Your task to perform on an android device: create a new album in the google photos Image 0: 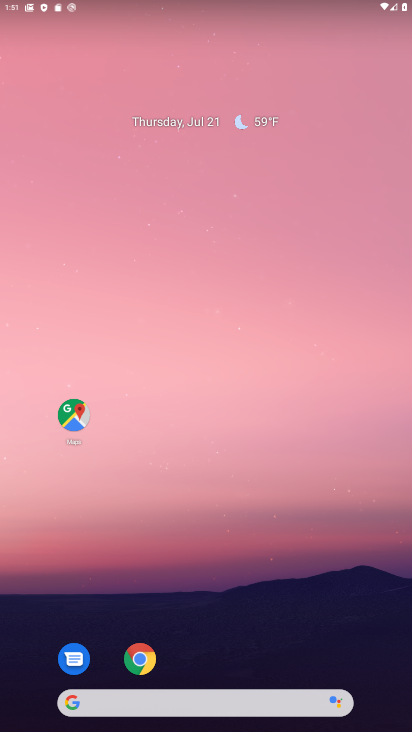
Step 0: drag from (283, 275) to (303, 43)
Your task to perform on an android device: create a new album in the google photos Image 1: 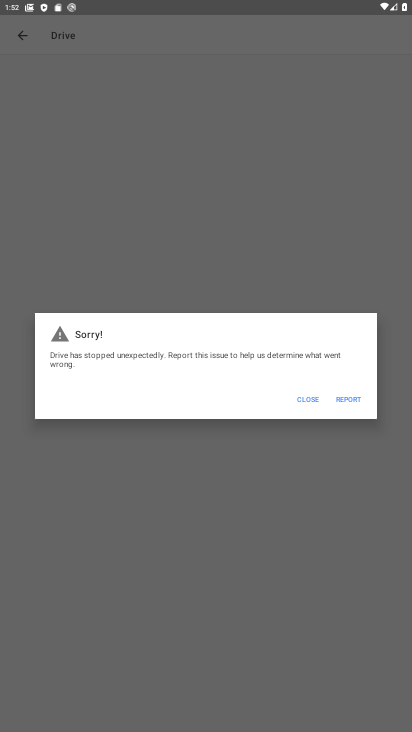
Step 1: press home button
Your task to perform on an android device: create a new album in the google photos Image 2: 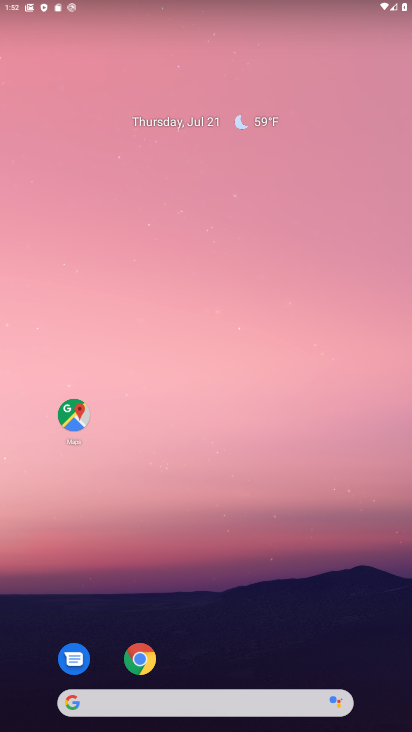
Step 2: drag from (293, 577) to (272, 4)
Your task to perform on an android device: create a new album in the google photos Image 3: 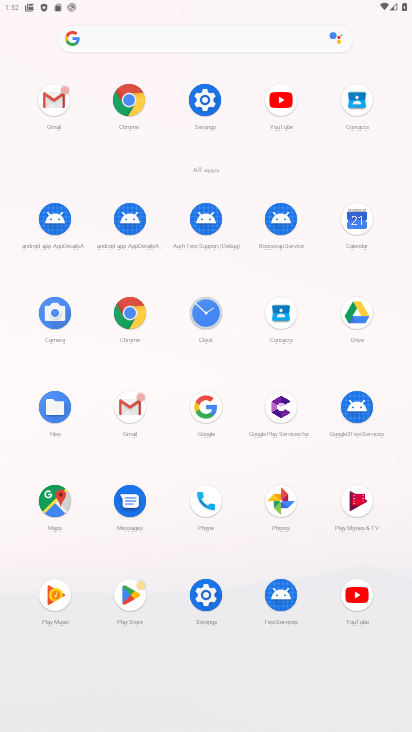
Step 3: click (281, 497)
Your task to perform on an android device: create a new album in the google photos Image 4: 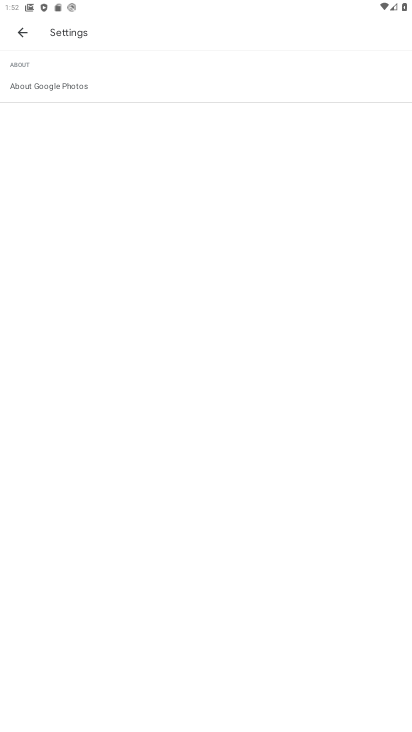
Step 4: click (30, 26)
Your task to perform on an android device: create a new album in the google photos Image 5: 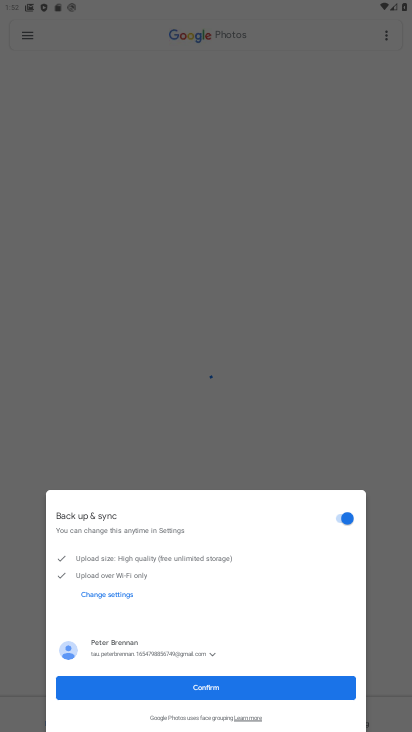
Step 5: click (245, 680)
Your task to perform on an android device: create a new album in the google photos Image 6: 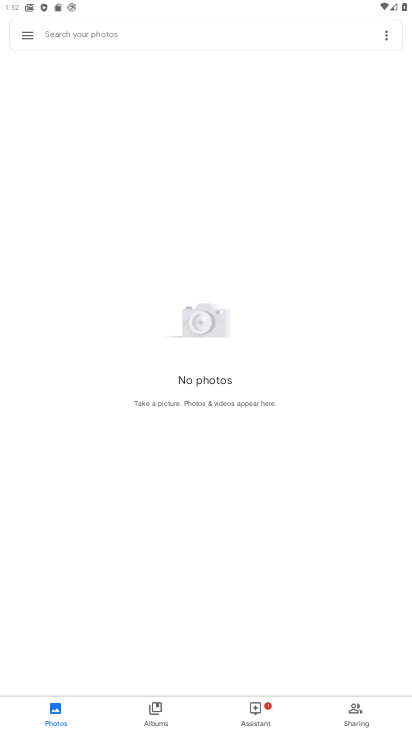
Step 6: click (160, 703)
Your task to perform on an android device: create a new album in the google photos Image 7: 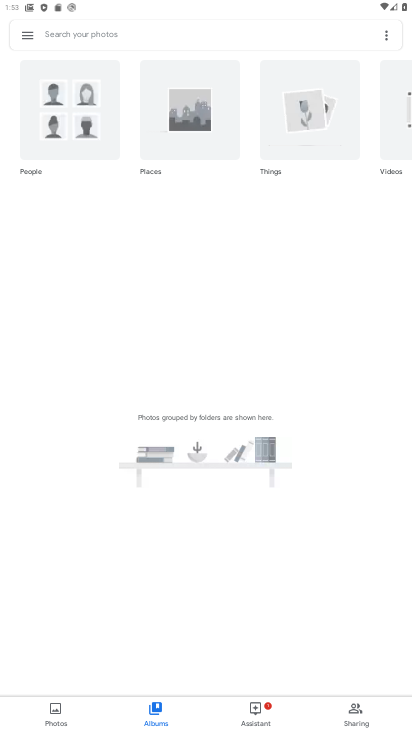
Step 7: click (391, 34)
Your task to perform on an android device: create a new album in the google photos Image 8: 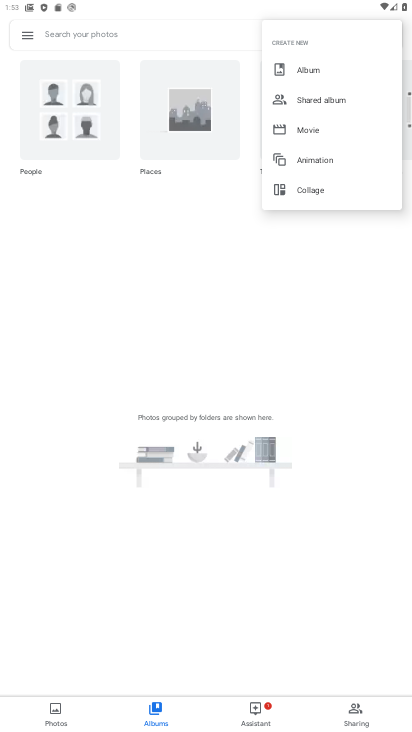
Step 8: click (322, 65)
Your task to perform on an android device: create a new album in the google photos Image 9: 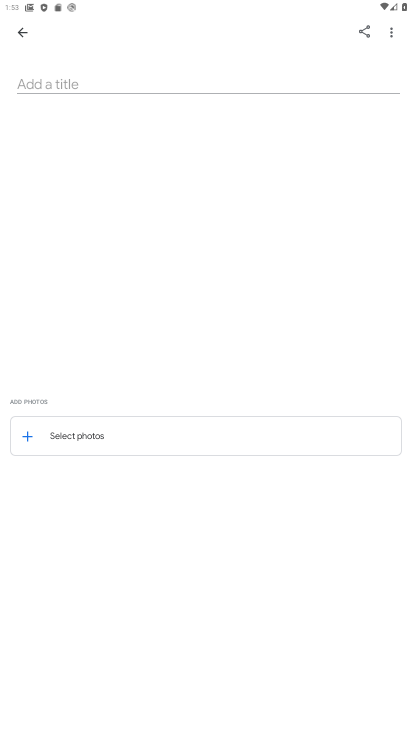
Step 9: click (250, 93)
Your task to perform on an android device: create a new album in the google photos Image 10: 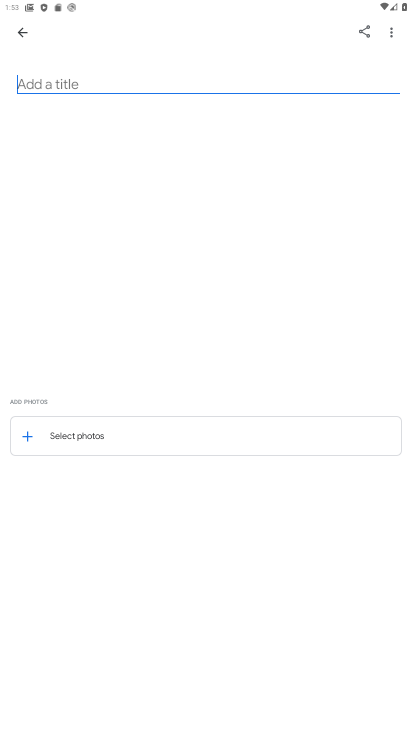
Step 10: click (250, 87)
Your task to perform on an android device: create a new album in the google photos Image 11: 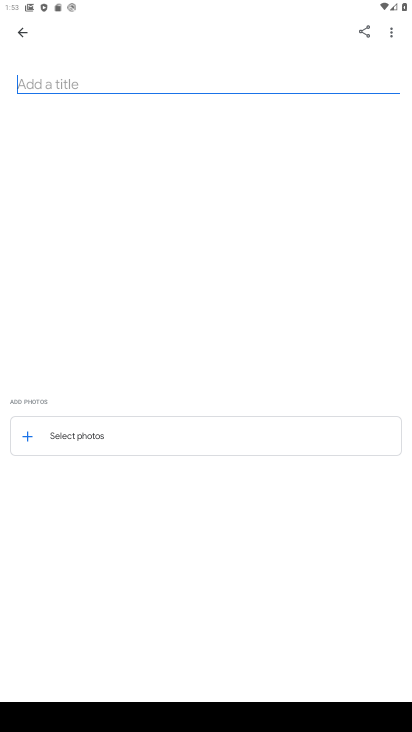
Step 11: type "rooling"
Your task to perform on an android device: create a new album in the google photos Image 12: 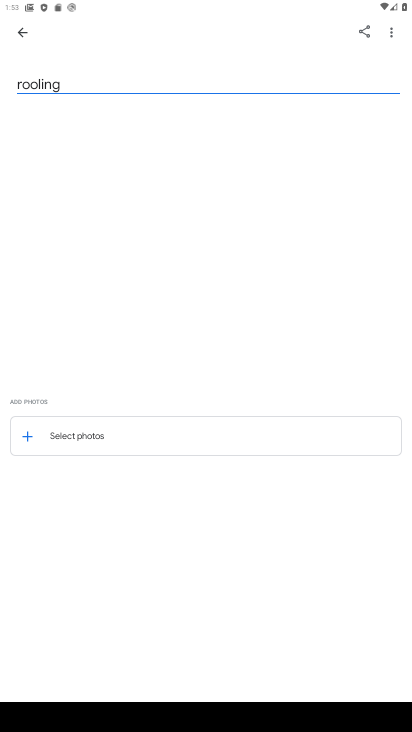
Step 12: task complete